Your task to perform on an android device: Search for Mexican restaurants on Maps Image 0: 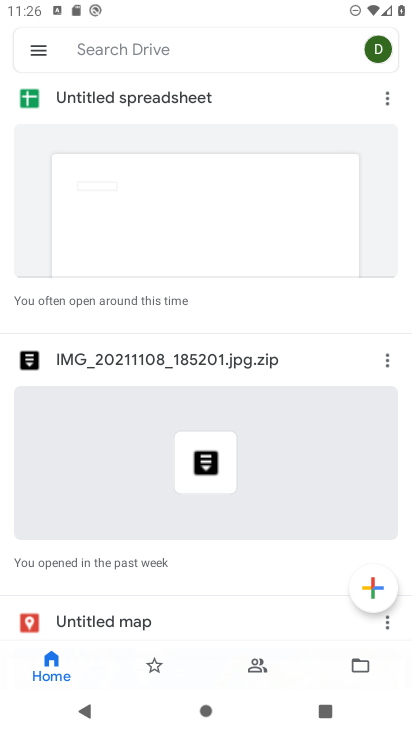
Step 0: press home button
Your task to perform on an android device: Search for Mexican restaurants on Maps Image 1: 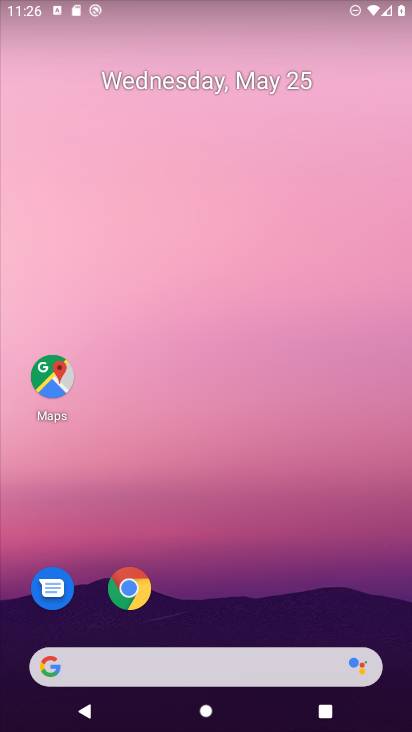
Step 1: click (48, 377)
Your task to perform on an android device: Search for Mexican restaurants on Maps Image 2: 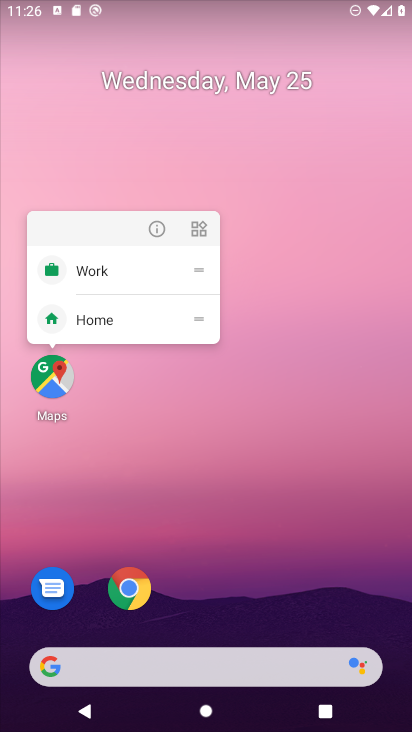
Step 2: click (33, 371)
Your task to perform on an android device: Search for Mexican restaurants on Maps Image 3: 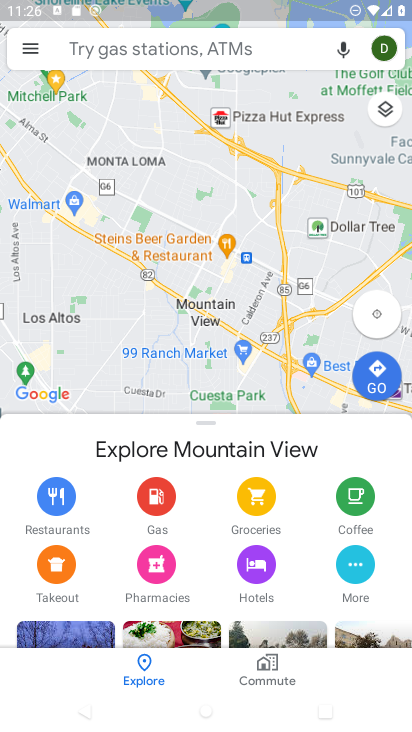
Step 3: click (155, 39)
Your task to perform on an android device: Search for Mexican restaurants on Maps Image 4: 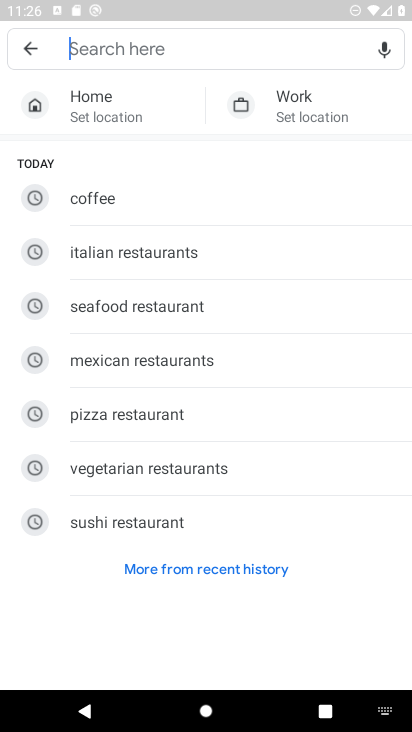
Step 4: click (97, 363)
Your task to perform on an android device: Search for Mexican restaurants on Maps Image 5: 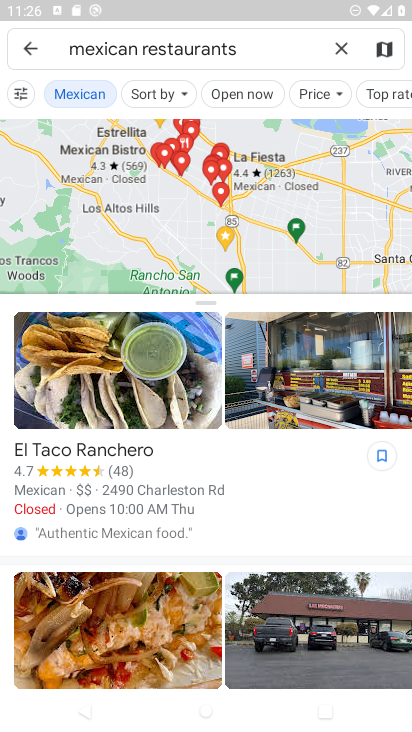
Step 5: task complete